Your task to perform on an android device: toggle airplane mode Image 0: 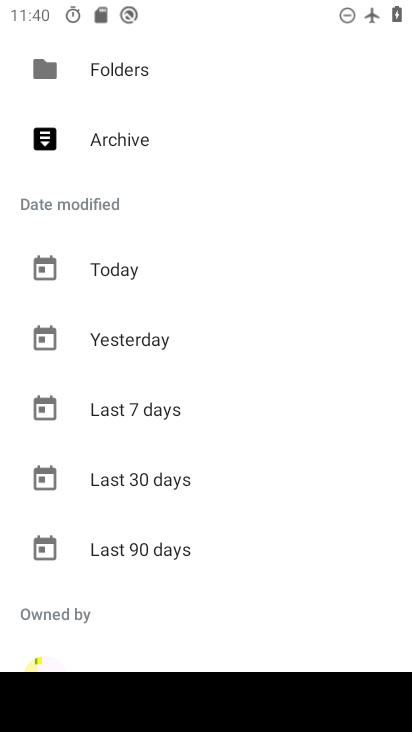
Step 0: drag from (226, 668) to (261, 164)
Your task to perform on an android device: toggle airplane mode Image 1: 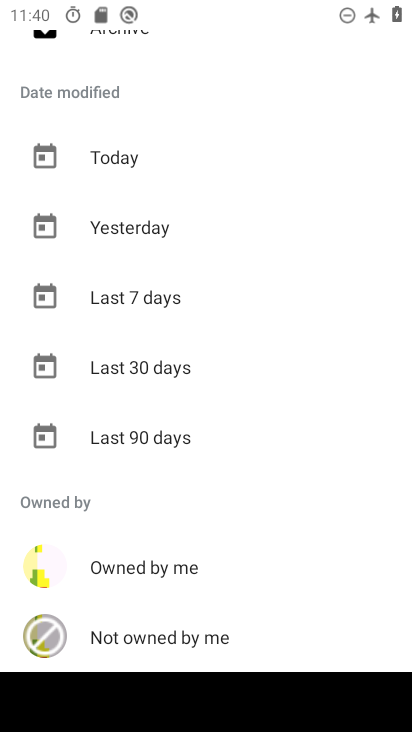
Step 1: drag from (219, 184) to (261, 729)
Your task to perform on an android device: toggle airplane mode Image 2: 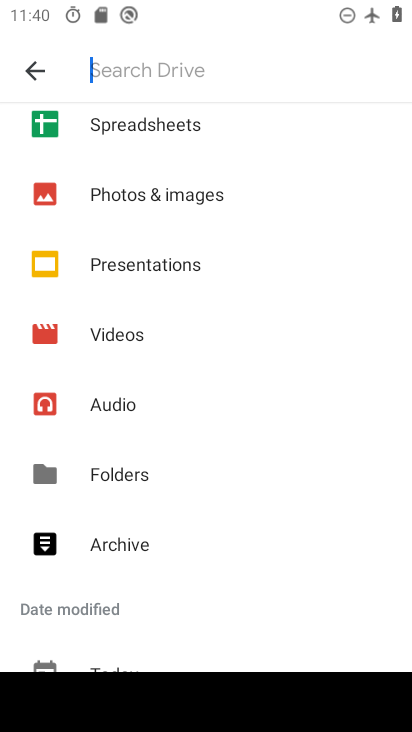
Step 2: drag from (229, 228) to (263, 639)
Your task to perform on an android device: toggle airplane mode Image 3: 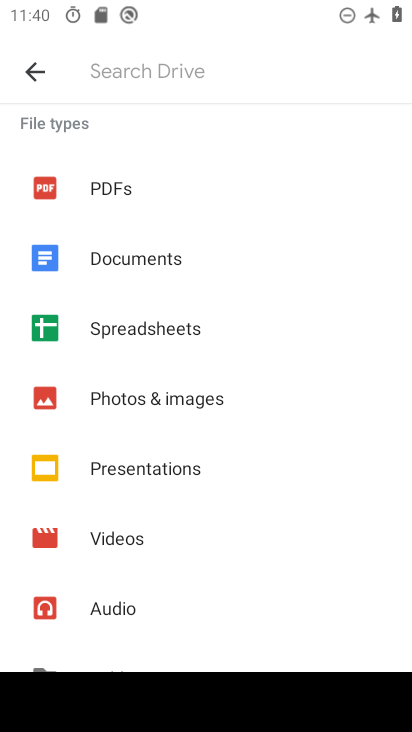
Step 3: click (37, 79)
Your task to perform on an android device: toggle airplane mode Image 4: 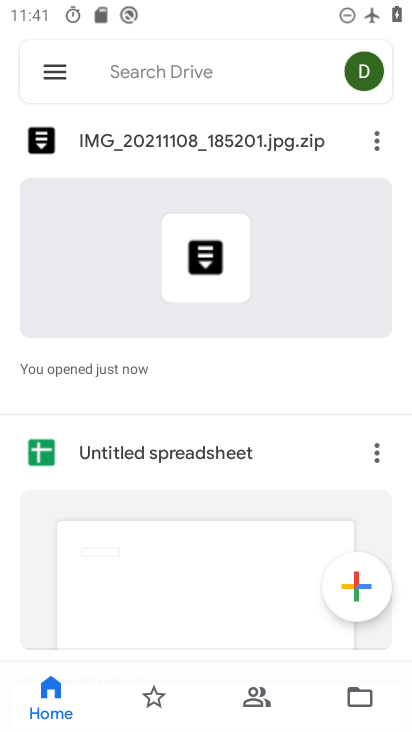
Step 4: press home button
Your task to perform on an android device: toggle airplane mode Image 5: 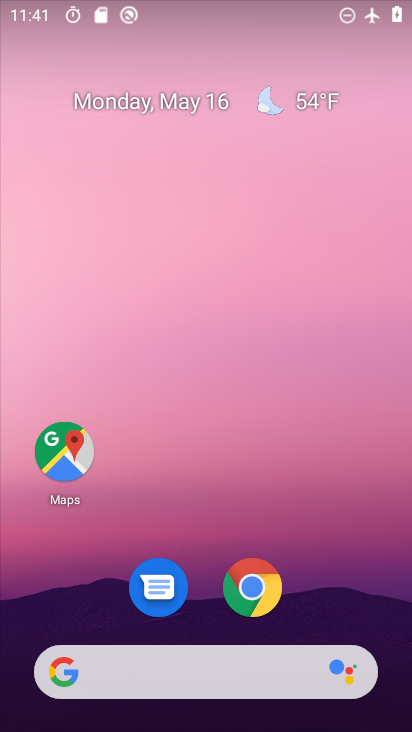
Step 5: drag from (218, 598) to (197, 294)
Your task to perform on an android device: toggle airplane mode Image 6: 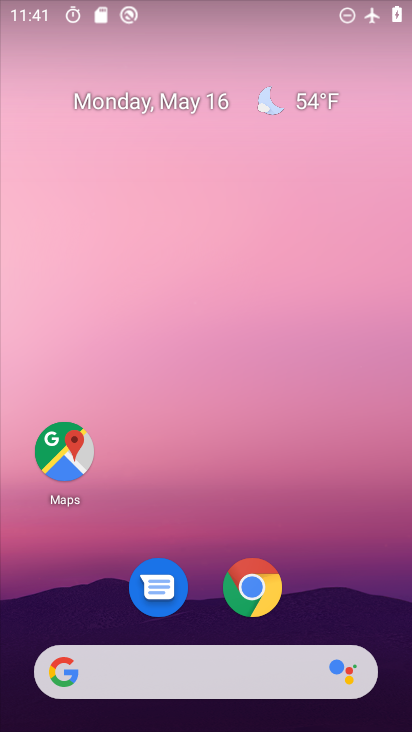
Step 6: drag from (208, 630) to (214, 67)
Your task to perform on an android device: toggle airplane mode Image 7: 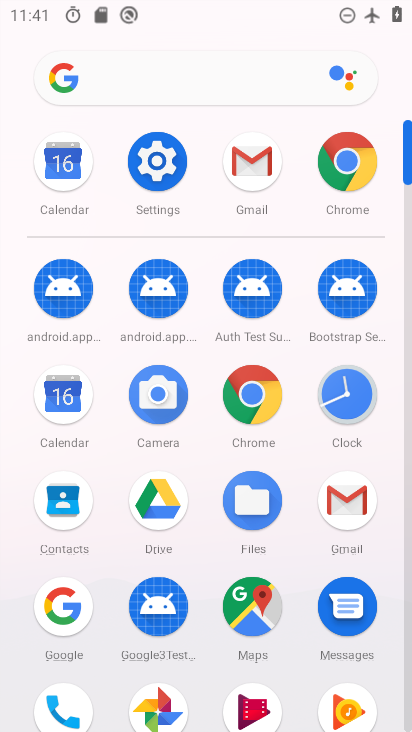
Step 7: drag from (214, 664) to (237, 180)
Your task to perform on an android device: toggle airplane mode Image 8: 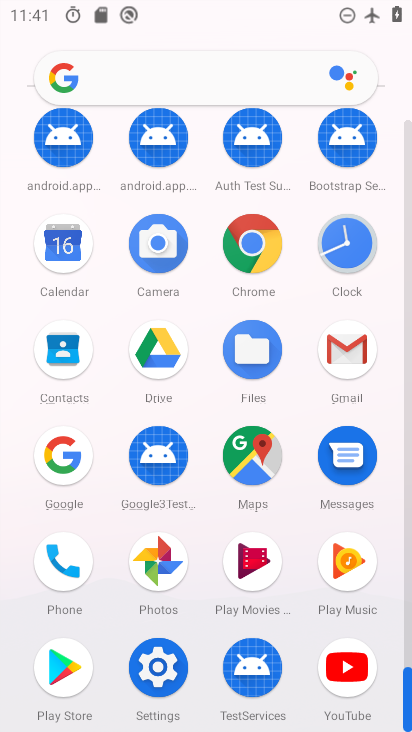
Step 8: click (157, 674)
Your task to perform on an android device: toggle airplane mode Image 9: 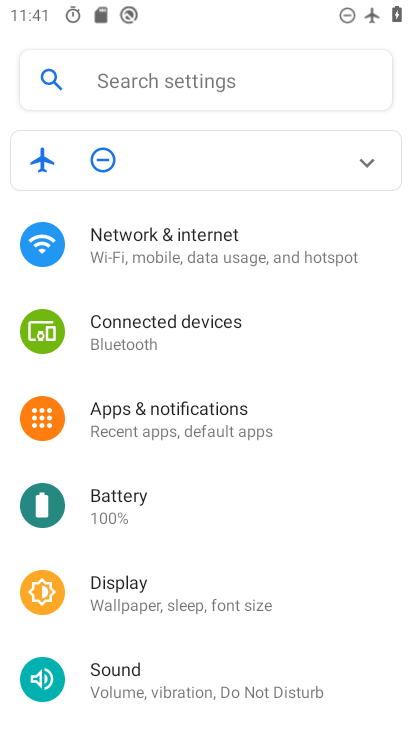
Step 9: click (189, 251)
Your task to perform on an android device: toggle airplane mode Image 10: 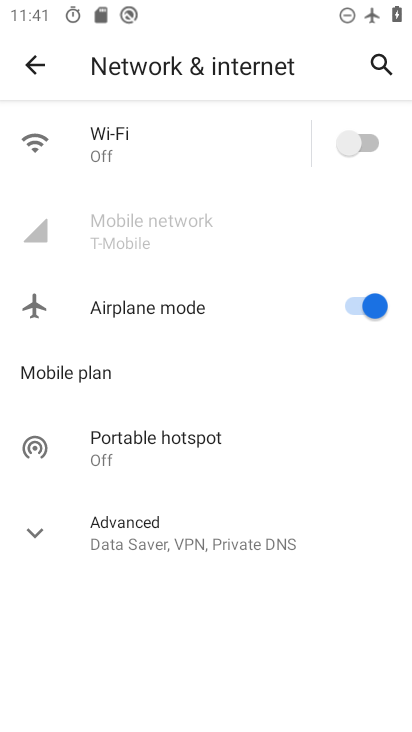
Step 10: click (355, 292)
Your task to perform on an android device: toggle airplane mode Image 11: 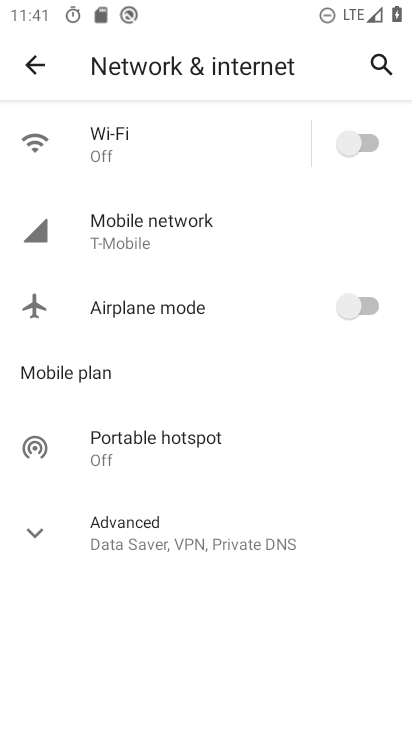
Step 11: task complete